Your task to perform on an android device: Open my contact list Image 0: 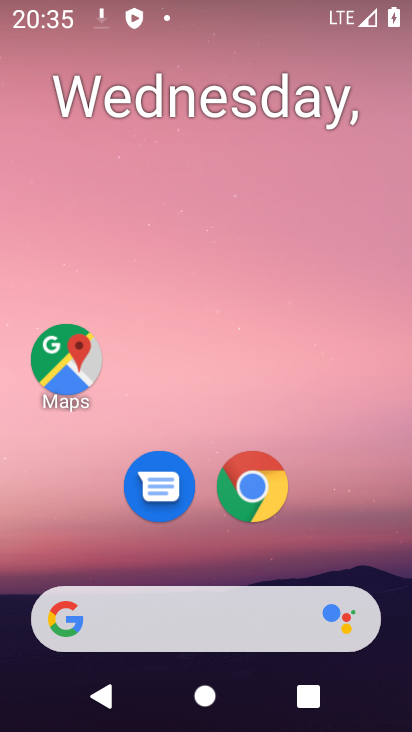
Step 0: drag from (265, 495) to (260, 30)
Your task to perform on an android device: Open my contact list Image 1: 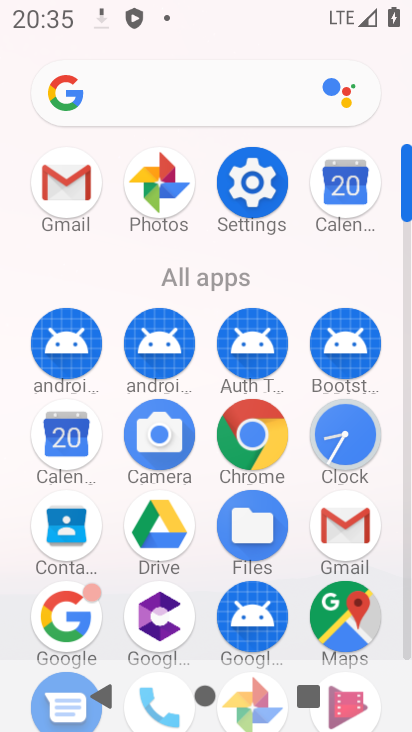
Step 1: click (70, 525)
Your task to perform on an android device: Open my contact list Image 2: 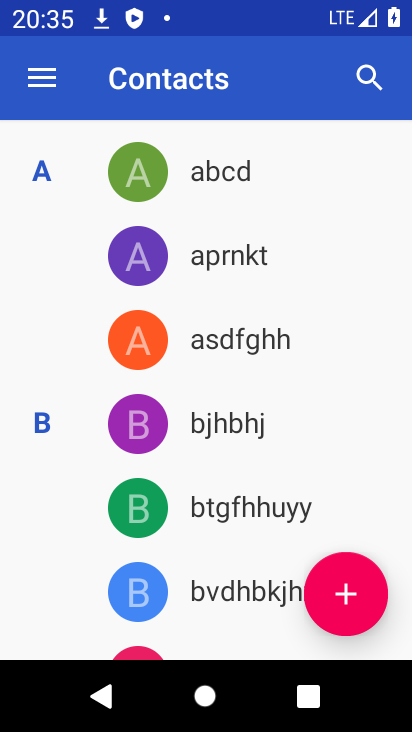
Step 2: task complete